Your task to perform on an android device: delete the emails in spam in the gmail app Image 0: 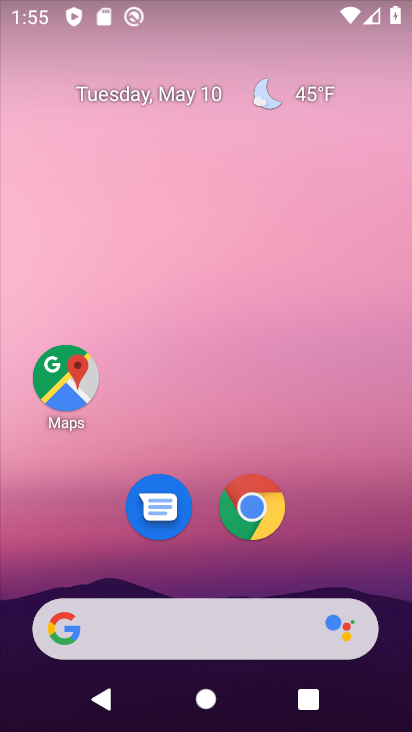
Step 0: drag from (63, 600) to (235, 24)
Your task to perform on an android device: delete the emails in spam in the gmail app Image 1: 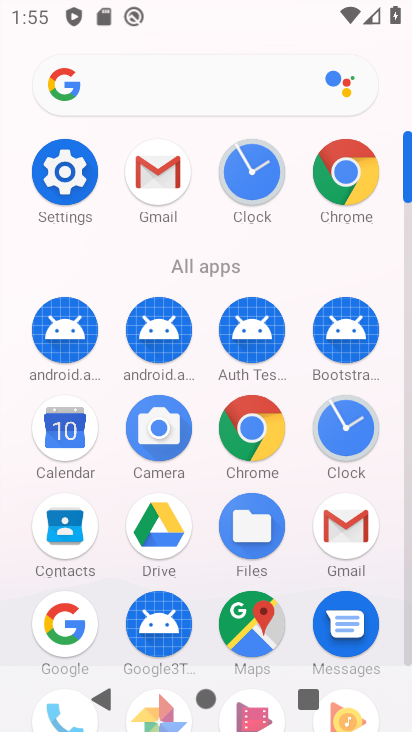
Step 1: click (354, 529)
Your task to perform on an android device: delete the emails in spam in the gmail app Image 2: 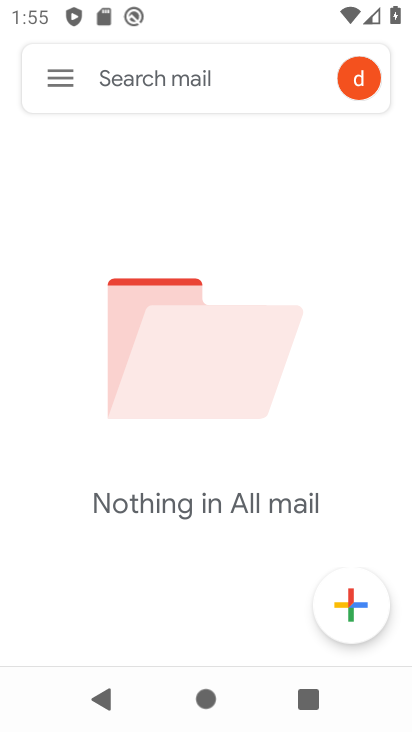
Step 2: click (74, 71)
Your task to perform on an android device: delete the emails in spam in the gmail app Image 3: 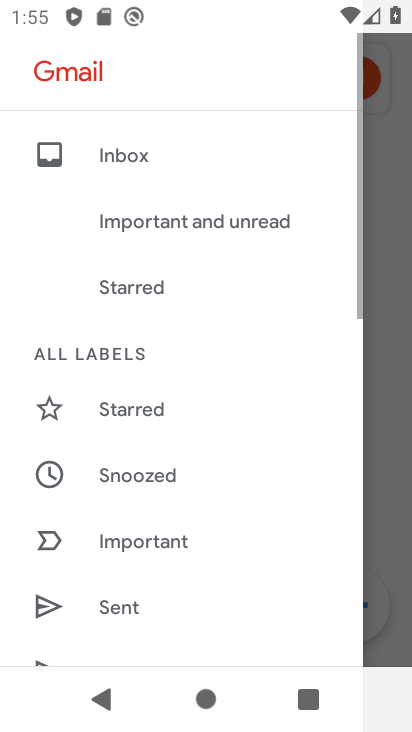
Step 3: drag from (175, 617) to (241, 307)
Your task to perform on an android device: delete the emails in spam in the gmail app Image 4: 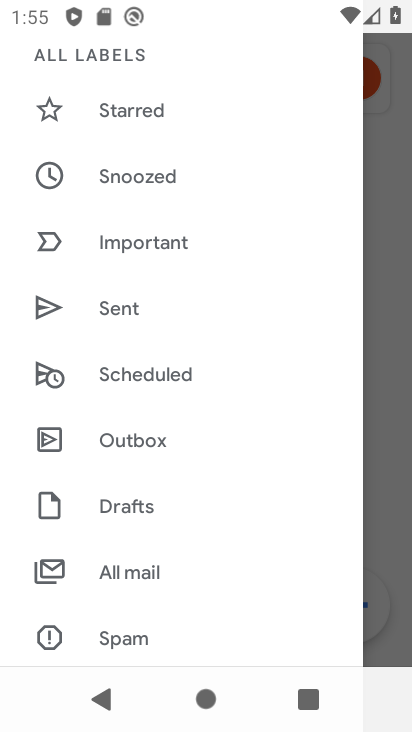
Step 4: click (138, 629)
Your task to perform on an android device: delete the emails in spam in the gmail app Image 5: 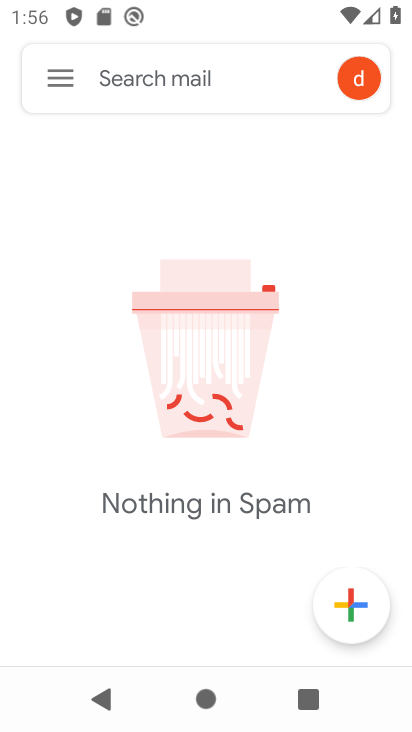
Step 5: task complete